Your task to perform on an android device: open app "Messenger Lite" (install if not already installed) and go to login screen Image 0: 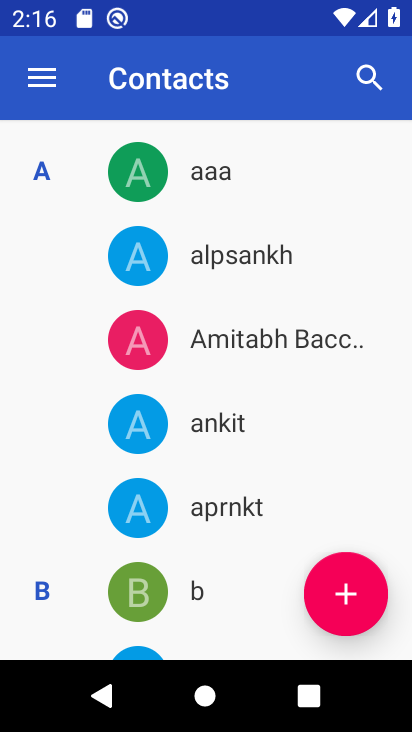
Step 0: press home button
Your task to perform on an android device: open app "Messenger Lite" (install if not already installed) and go to login screen Image 1: 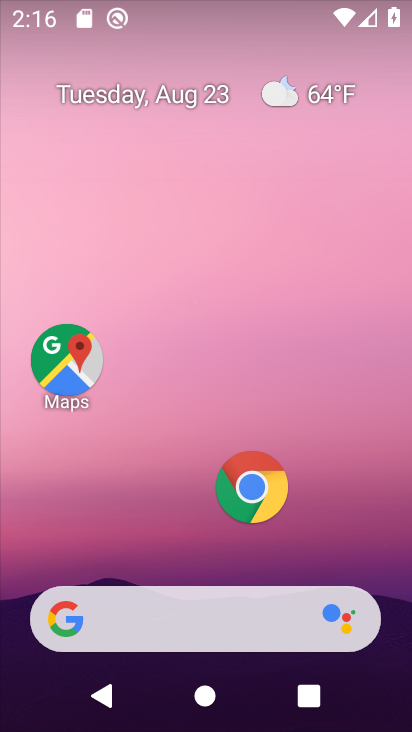
Step 1: drag from (152, 554) to (161, 161)
Your task to perform on an android device: open app "Messenger Lite" (install if not already installed) and go to login screen Image 2: 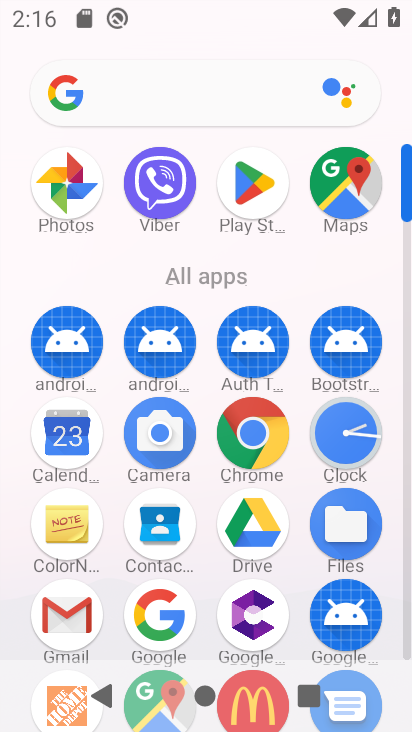
Step 2: click (240, 176)
Your task to perform on an android device: open app "Messenger Lite" (install if not already installed) and go to login screen Image 3: 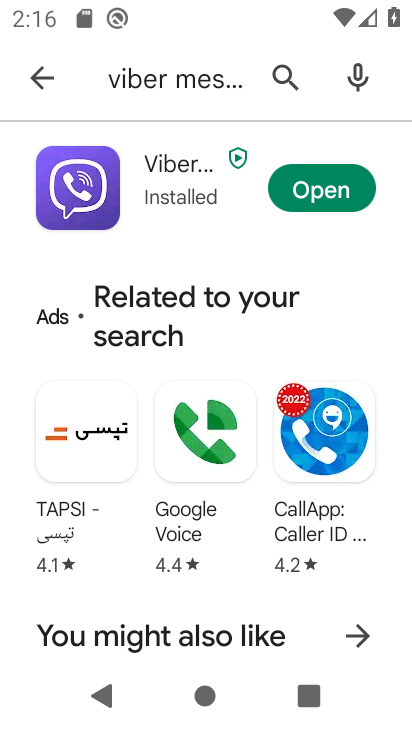
Step 3: click (26, 62)
Your task to perform on an android device: open app "Messenger Lite" (install if not already installed) and go to login screen Image 4: 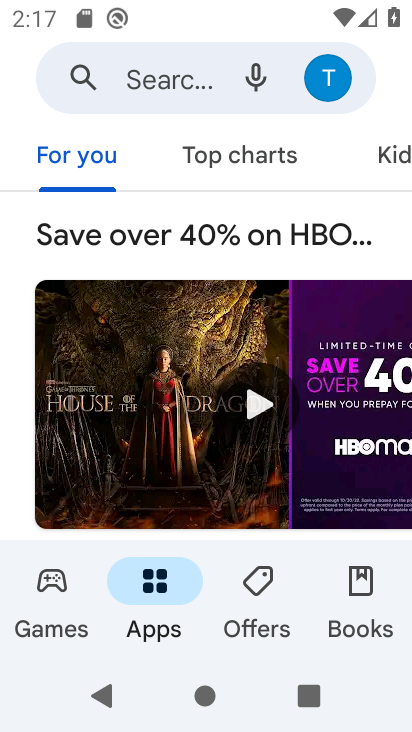
Step 4: click (200, 82)
Your task to perform on an android device: open app "Messenger Lite" (install if not already installed) and go to login screen Image 5: 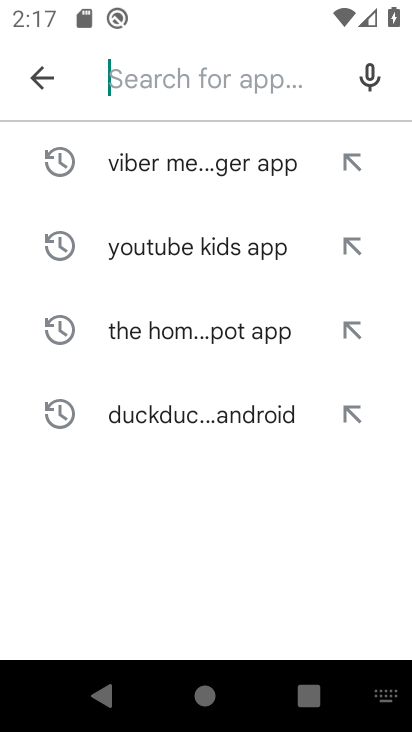
Step 5: type "Messenger Lite "
Your task to perform on an android device: open app "Messenger Lite" (install if not already installed) and go to login screen Image 6: 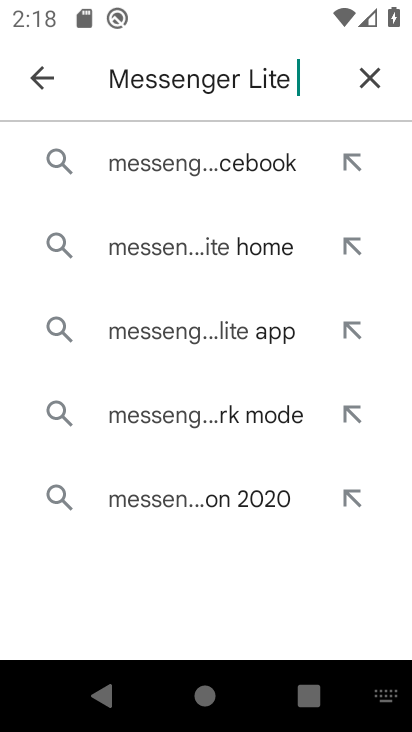
Step 6: click (211, 158)
Your task to perform on an android device: open app "Messenger Lite" (install if not already installed) and go to login screen Image 7: 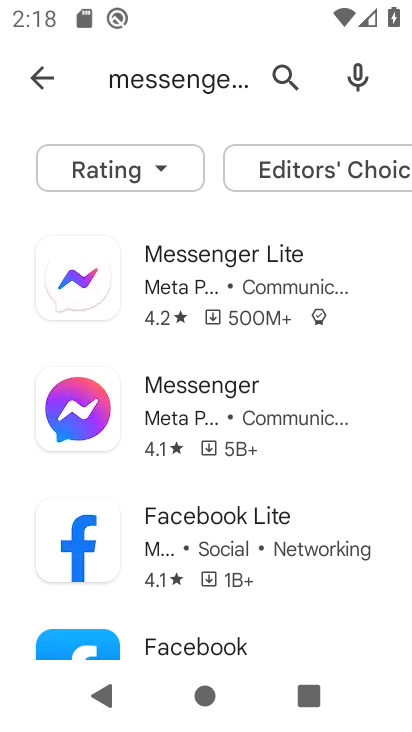
Step 7: click (203, 262)
Your task to perform on an android device: open app "Messenger Lite" (install if not already installed) and go to login screen Image 8: 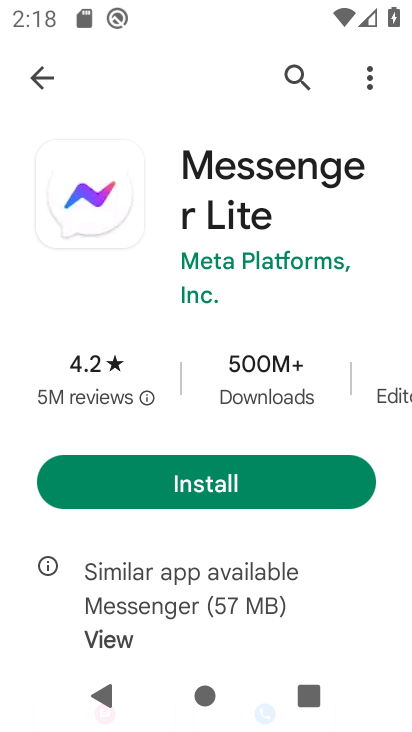
Step 8: click (278, 461)
Your task to perform on an android device: open app "Messenger Lite" (install if not already installed) and go to login screen Image 9: 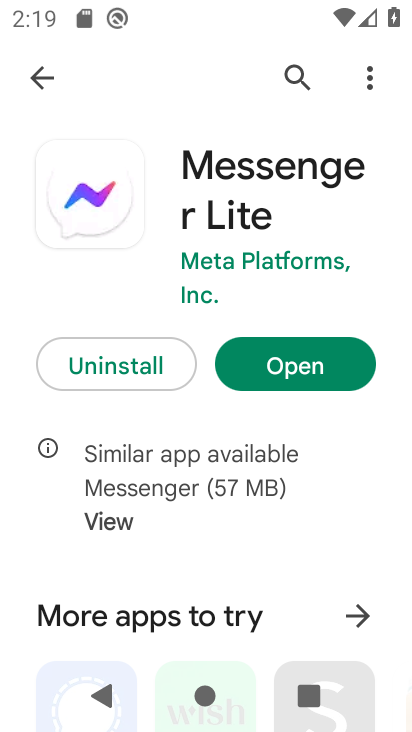
Step 9: task complete